Your task to perform on an android device: Is it going to rain this weekend? Image 0: 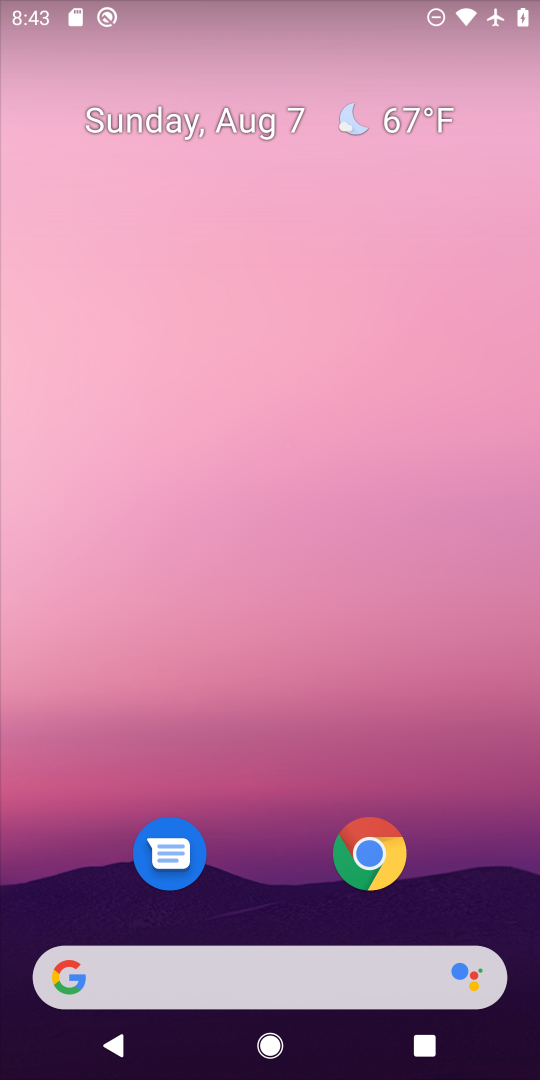
Step 0: drag from (213, 949) to (231, 247)
Your task to perform on an android device: Is it going to rain this weekend? Image 1: 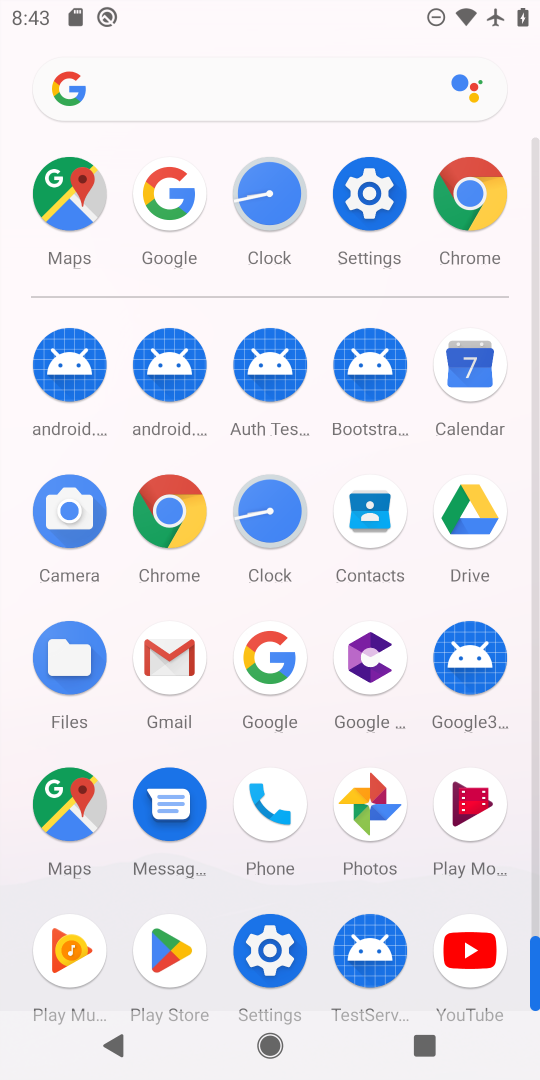
Step 1: click (261, 685)
Your task to perform on an android device: Is it going to rain this weekend? Image 2: 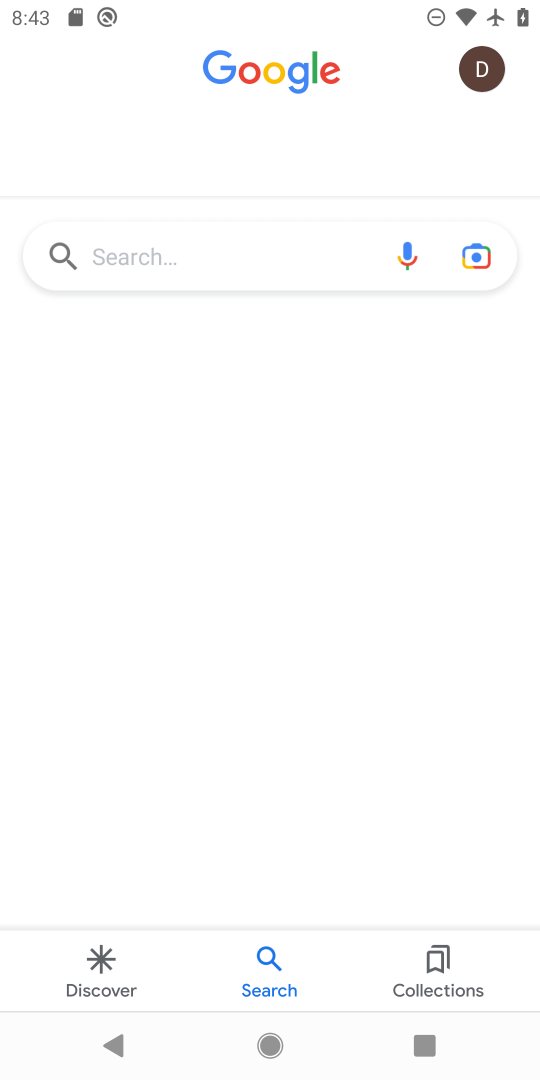
Step 2: click (174, 249)
Your task to perform on an android device: Is it going to rain this weekend? Image 3: 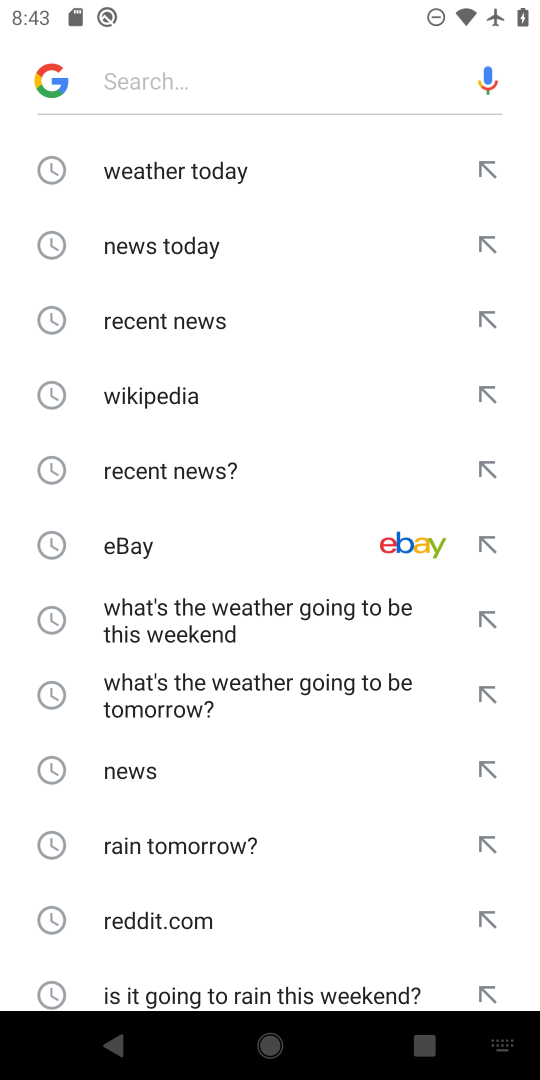
Step 3: click (293, 171)
Your task to perform on an android device: Is it going to rain this weekend? Image 4: 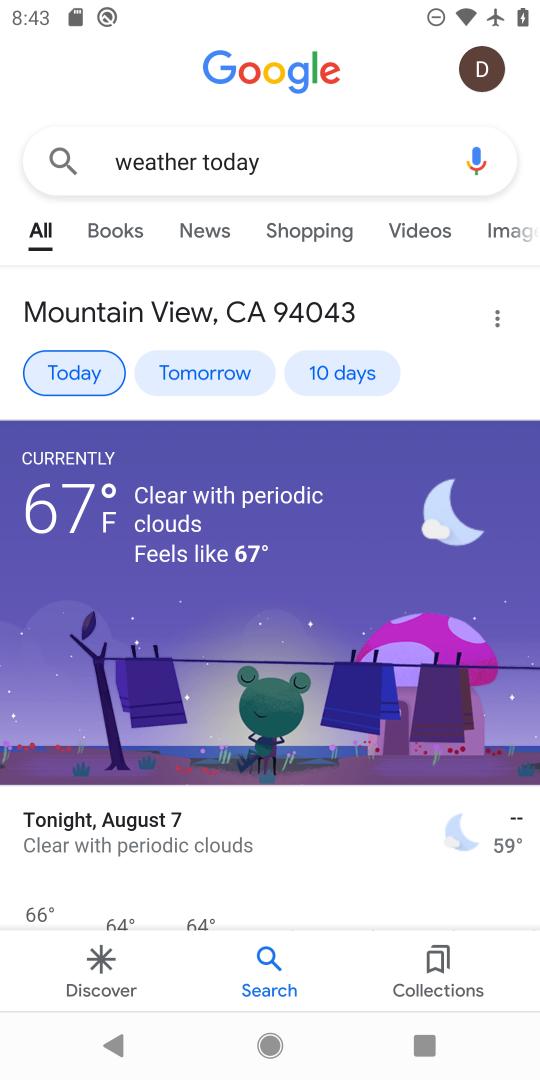
Step 4: click (349, 368)
Your task to perform on an android device: Is it going to rain this weekend? Image 5: 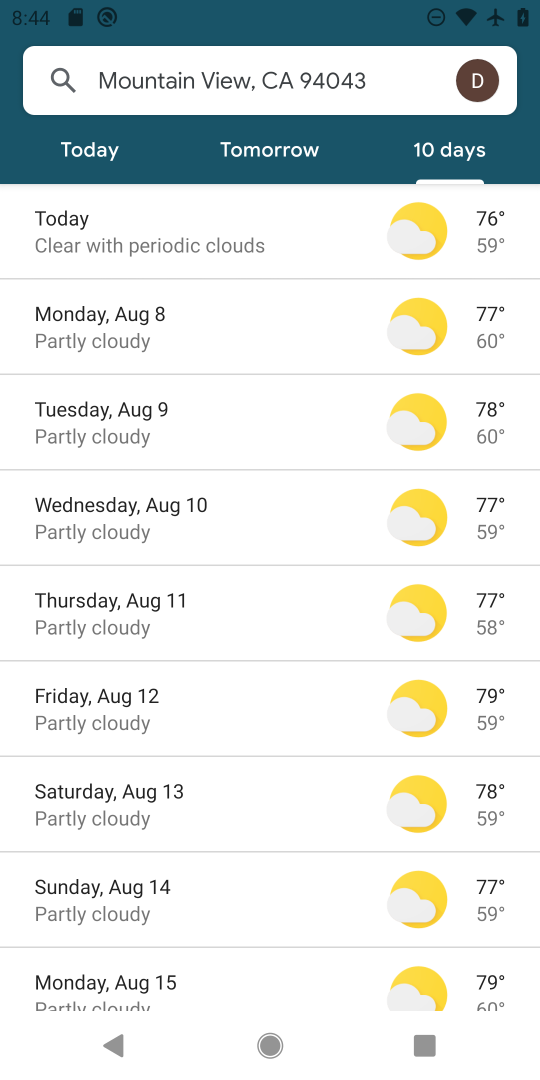
Step 5: task complete